Your task to perform on an android device: Open calendar and show me the second week of next month Image 0: 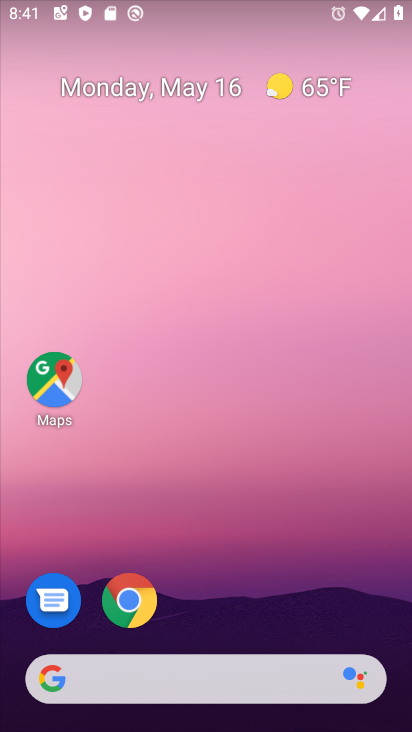
Step 0: drag from (312, 33) to (216, 38)
Your task to perform on an android device: Open calendar and show me the second week of next month Image 1: 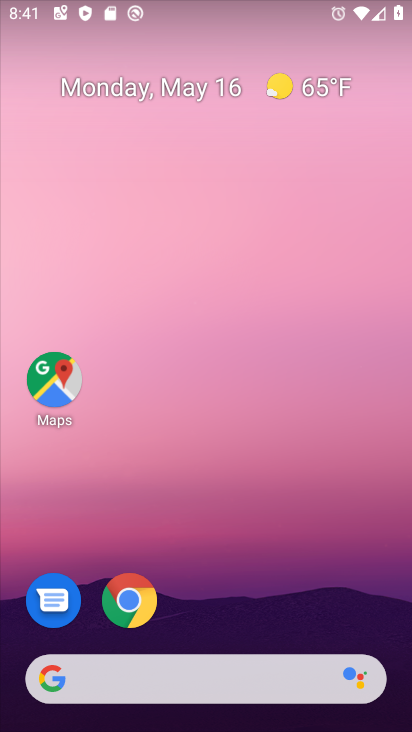
Step 1: drag from (236, 580) to (268, 82)
Your task to perform on an android device: Open calendar and show me the second week of next month Image 2: 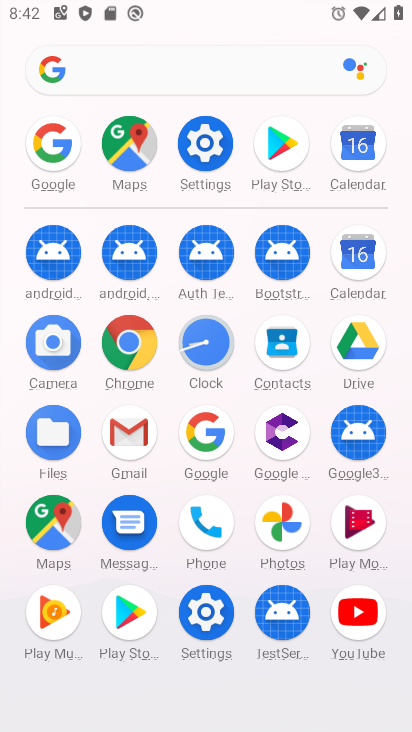
Step 2: click (362, 238)
Your task to perform on an android device: Open calendar and show me the second week of next month Image 3: 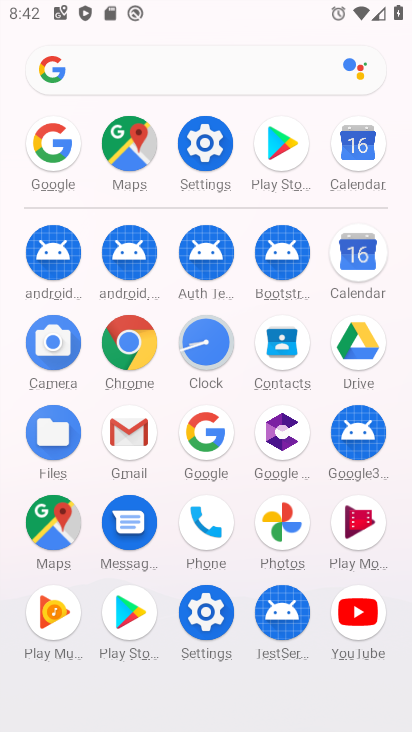
Step 3: click (363, 238)
Your task to perform on an android device: Open calendar and show me the second week of next month Image 4: 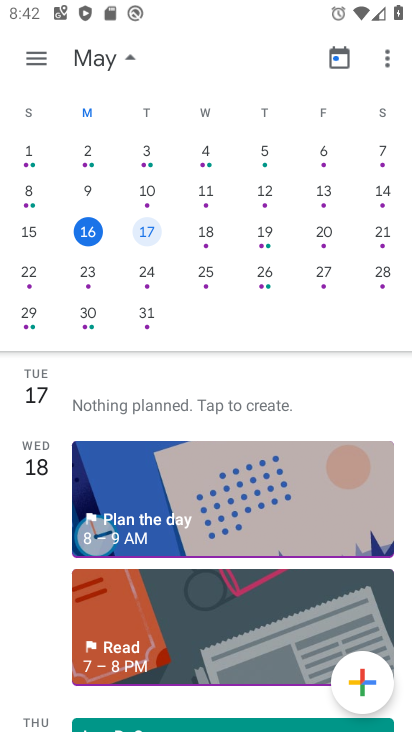
Step 4: drag from (361, 219) to (0, 203)
Your task to perform on an android device: Open calendar and show me the second week of next month Image 5: 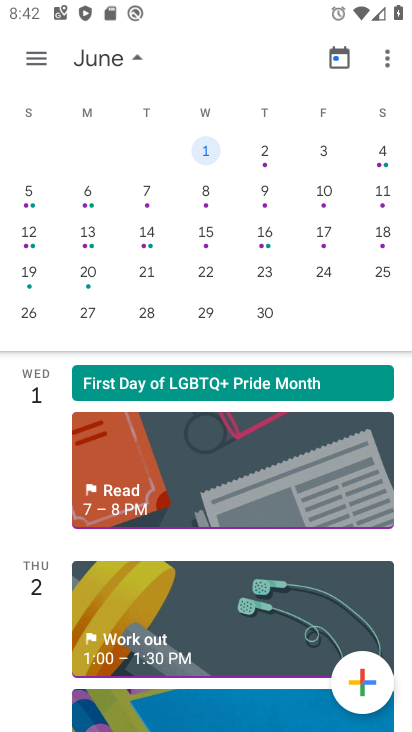
Step 5: click (324, 191)
Your task to perform on an android device: Open calendar and show me the second week of next month Image 6: 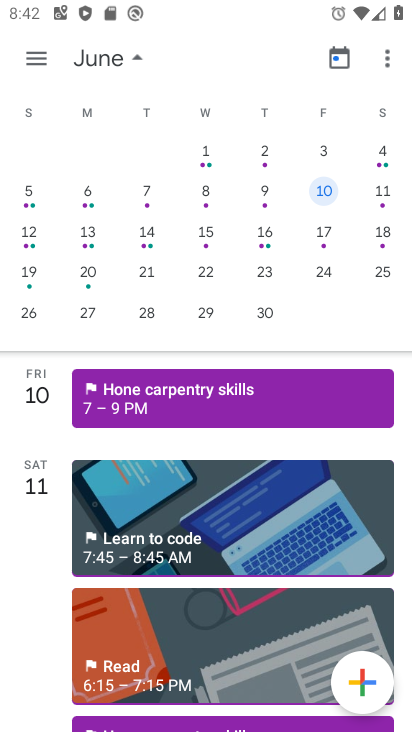
Step 6: task complete